Your task to perform on an android device: Open the phone app and click the voicemail tab. Image 0: 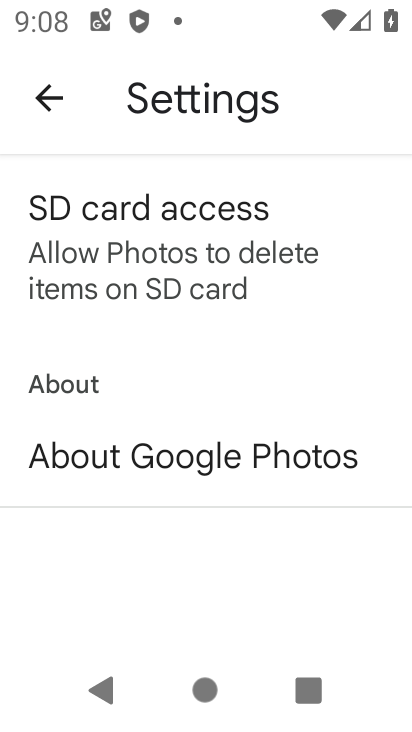
Step 0: press home button
Your task to perform on an android device: Open the phone app and click the voicemail tab. Image 1: 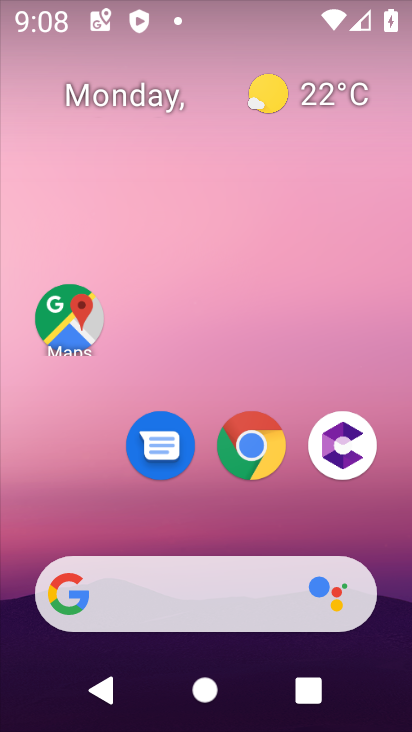
Step 1: drag from (218, 524) to (229, 65)
Your task to perform on an android device: Open the phone app and click the voicemail tab. Image 2: 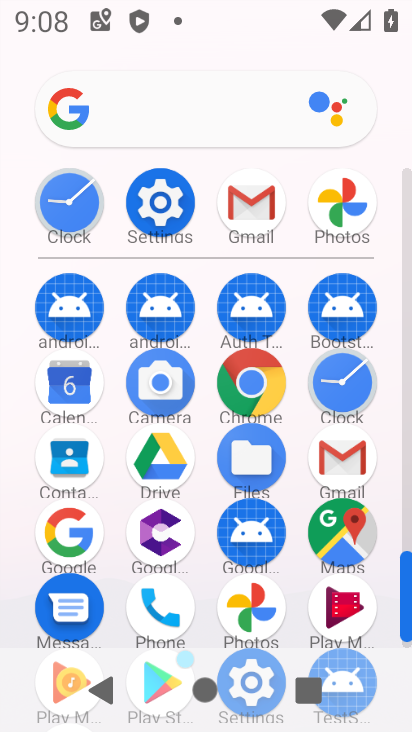
Step 2: drag from (15, 556) to (61, 326)
Your task to perform on an android device: Open the phone app and click the voicemail tab. Image 3: 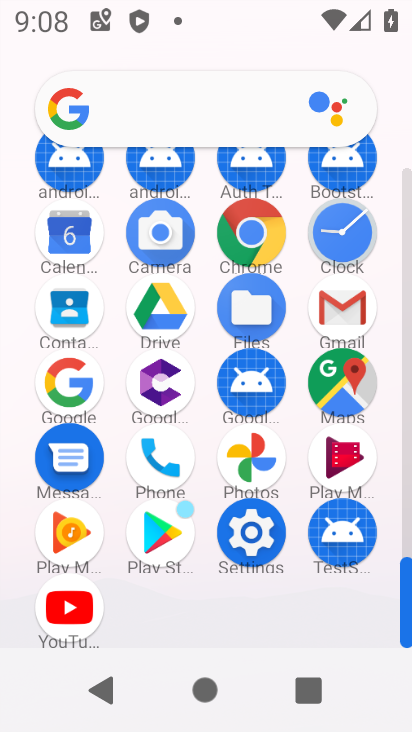
Step 3: click (149, 446)
Your task to perform on an android device: Open the phone app and click the voicemail tab. Image 4: 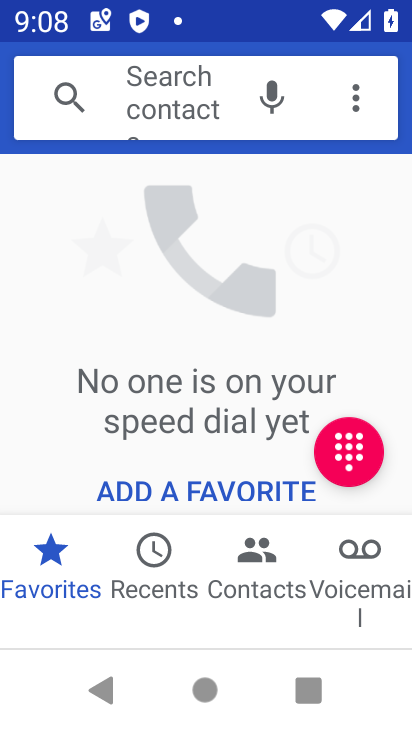
Step 4: click (366, 594)
Your task to perform on an android device: Open the phone app and click the voicemail tab. Image 5: 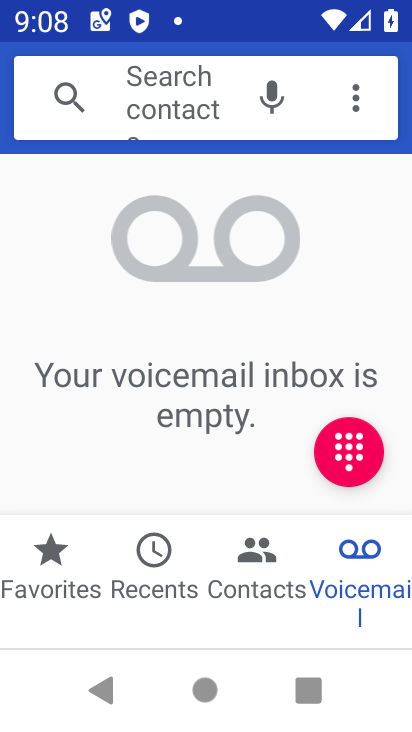
Step 5: task complete